Your task to perform on an android device: change notifications settings Image 0: 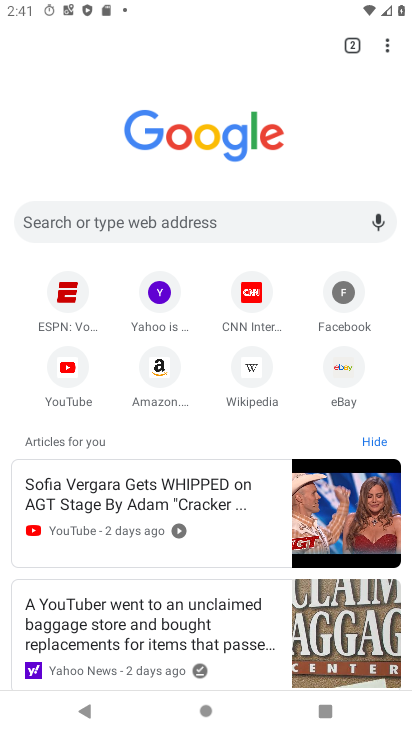
Step 0: press home button
Your task to perform on an android device: change notifications settings Image 1: 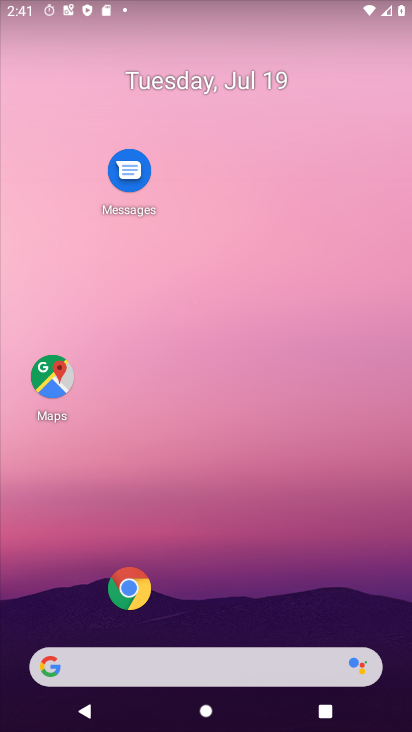
Step 1: drag from (45, 627) to (297, 82)
Your task to perform on an android device: change notifications settings Image 2: 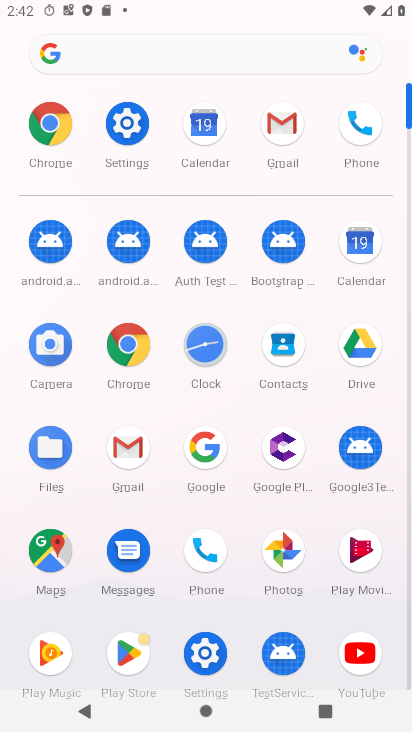
Step 2: click (211, 662)
Your task to perform on an android device: change notifications settings Image 3: 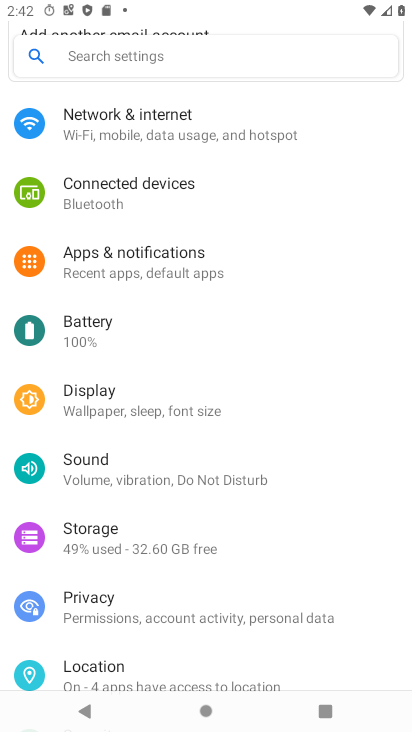
Step 3: click (152, 263)
Your task to perform on an android device: change notifications settings Image 4: 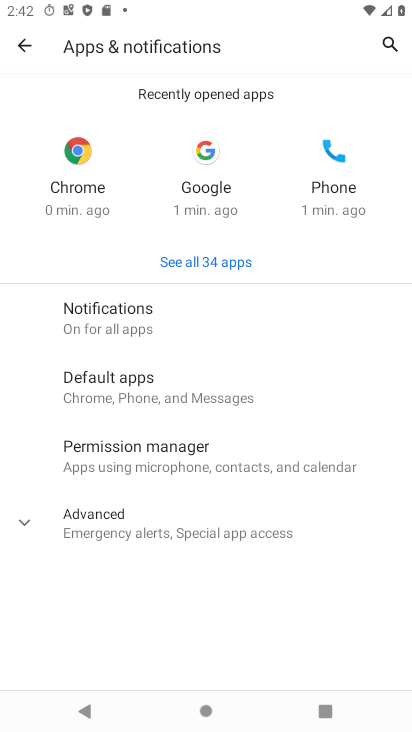
Step 4: click (139, 323)
Your task to perform on an android device: change notifications settings Image 5: 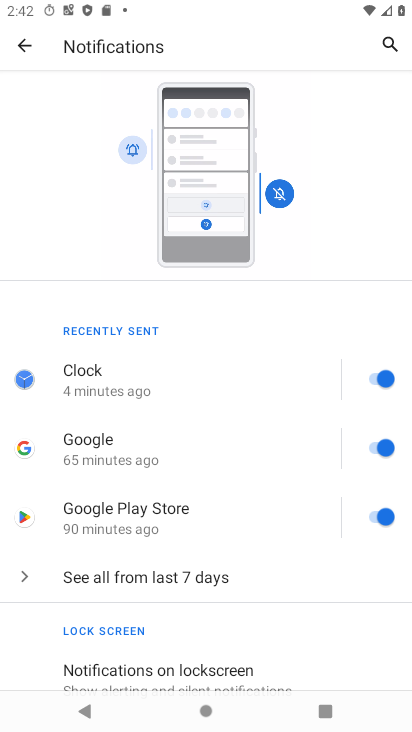
Step 5: drag from (253, 523) to (289, 331)
Your task to perform on an android device: change notifications settings Image 6: 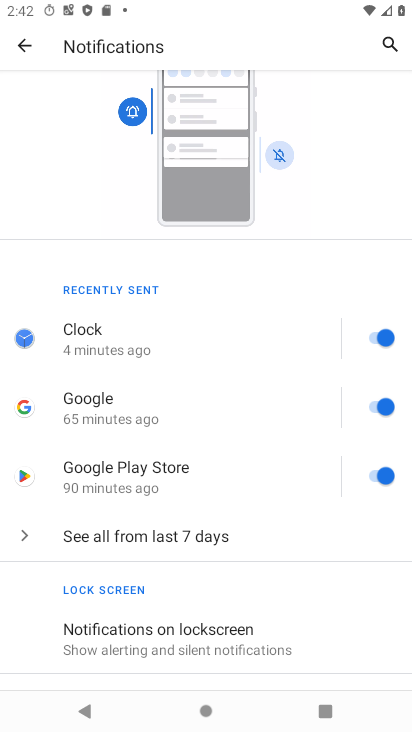
Step 6: drag from (257, 524) to (273, 377)
Your task to perform on an android device: change notifications settings Image 7: 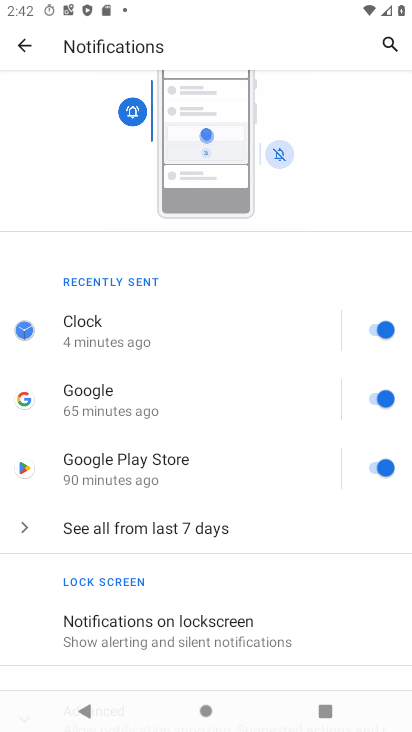
Step 7: drag from (249, 300) to (255, 660)
Your task to perform on an android device: change notifications settings Image 8: 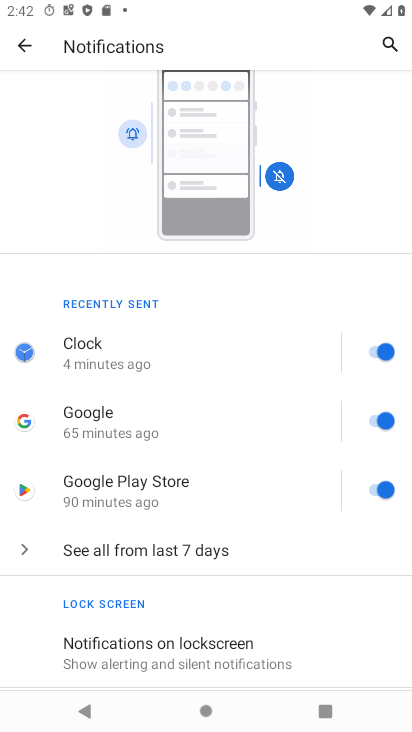
Step 8: click (33, 45)
Your task to perform on an android device: change notifications settings Image 9: 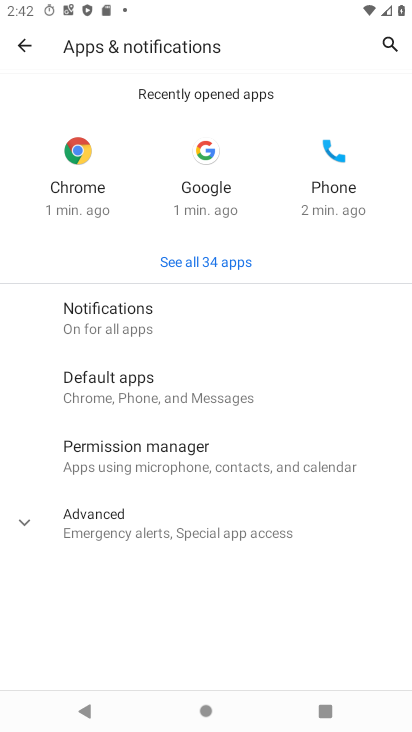
Step 9: task complete